Your task to perform on an android device: open the mobile data screen to see how much data has been used Image 0: 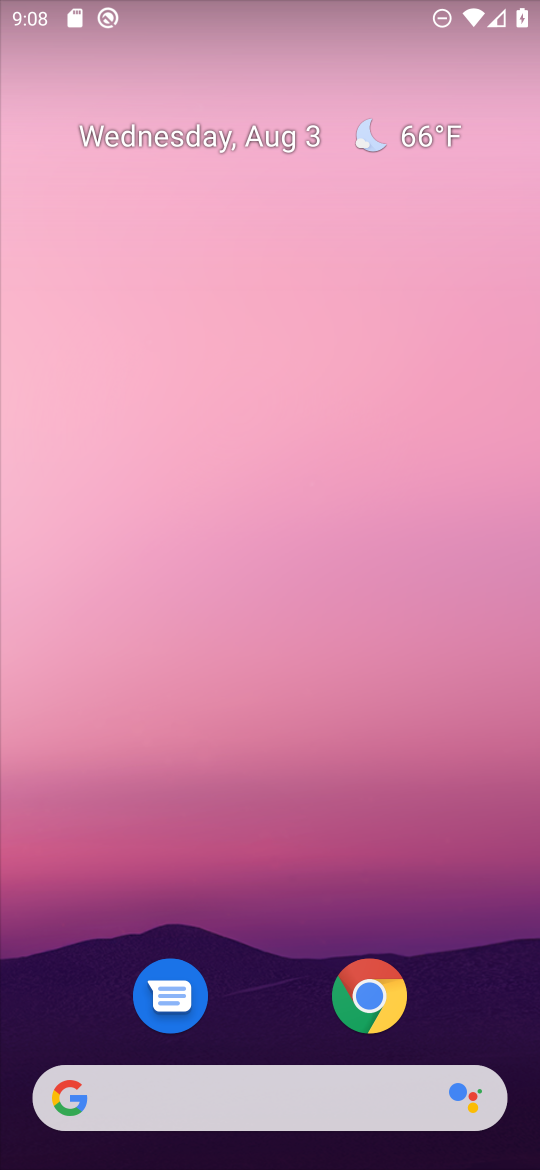
Step 0: drag from (298, 921) to (301, 120)
Your task to perform on an android device: open the mobile data screen to see how much data has been used Image 1: 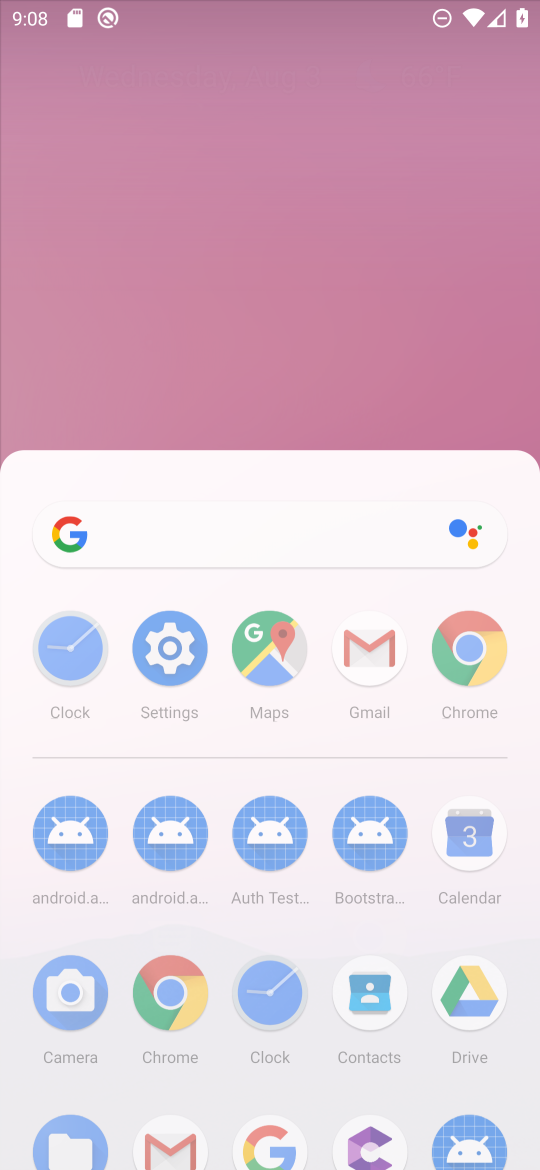
Step 1: click (293, 35)
Your task to perform on an android device: open the mobile data screen to see how much data has been used Image 2: 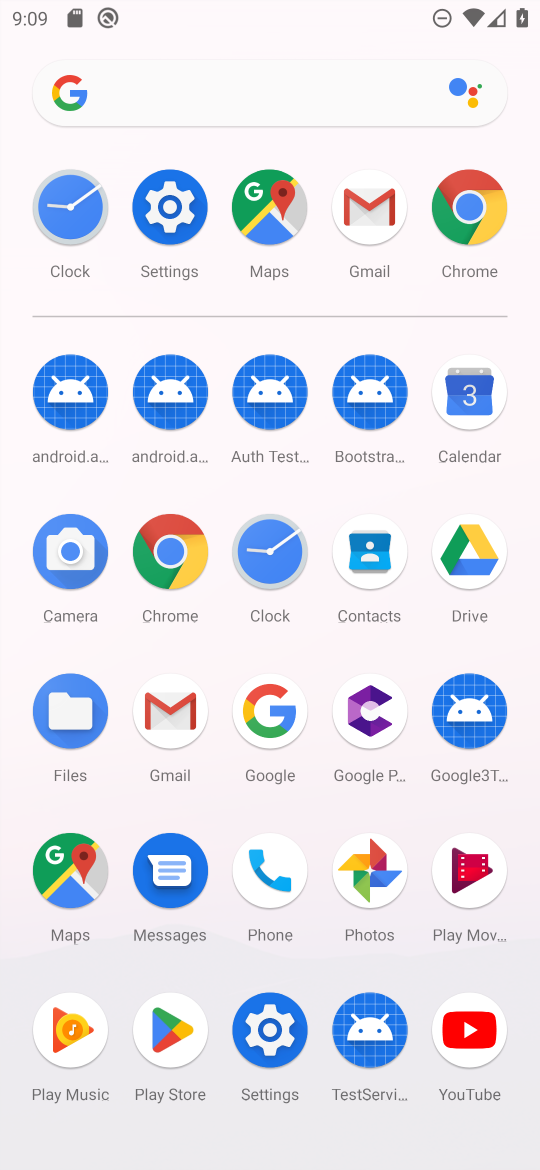
Step 2: click (177, 214)
Your task to perform on an android device: open the mobile data screen to see how much data has been used Image 3: 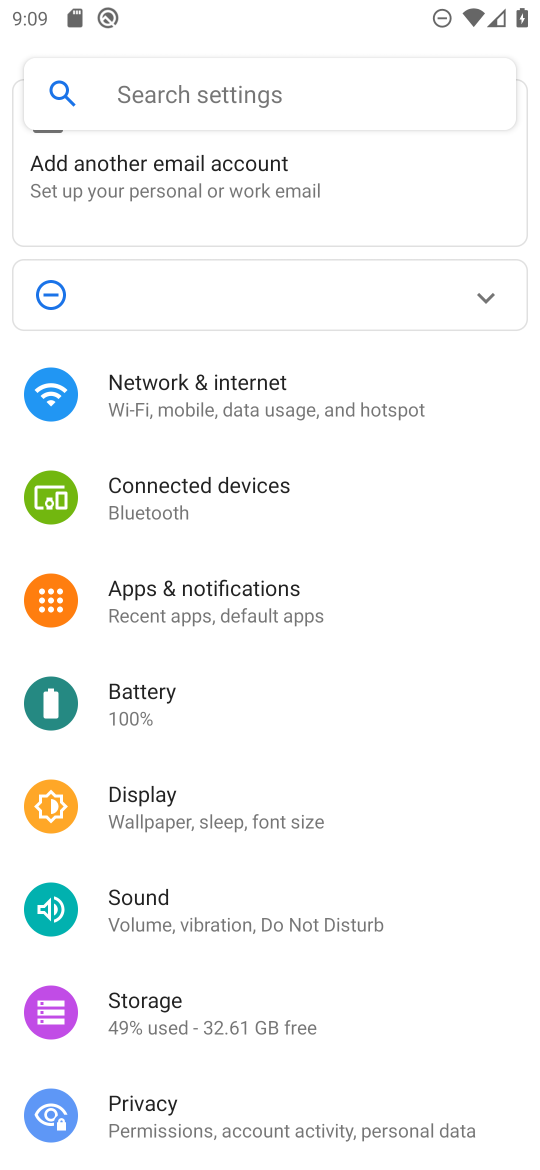
Step 3: click (252, 395)
Your task to perform on an android device: open the mobile data screen to see how much data has been used Image 4: 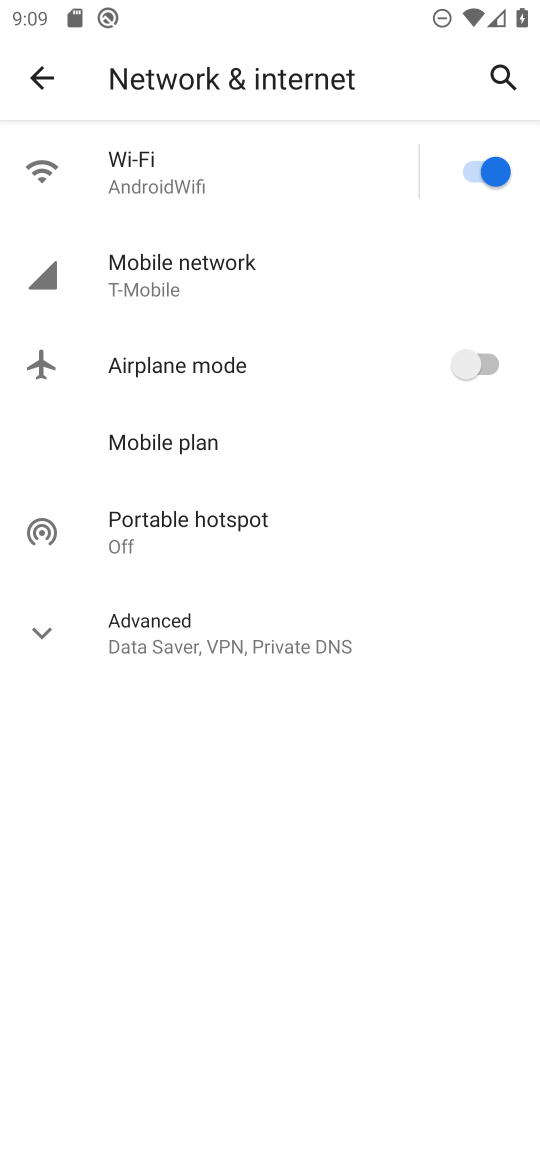
Step 4: click (211, 282)
Your task to perform on an android device: open the mobile data screen to see how much data has been used Image 5: 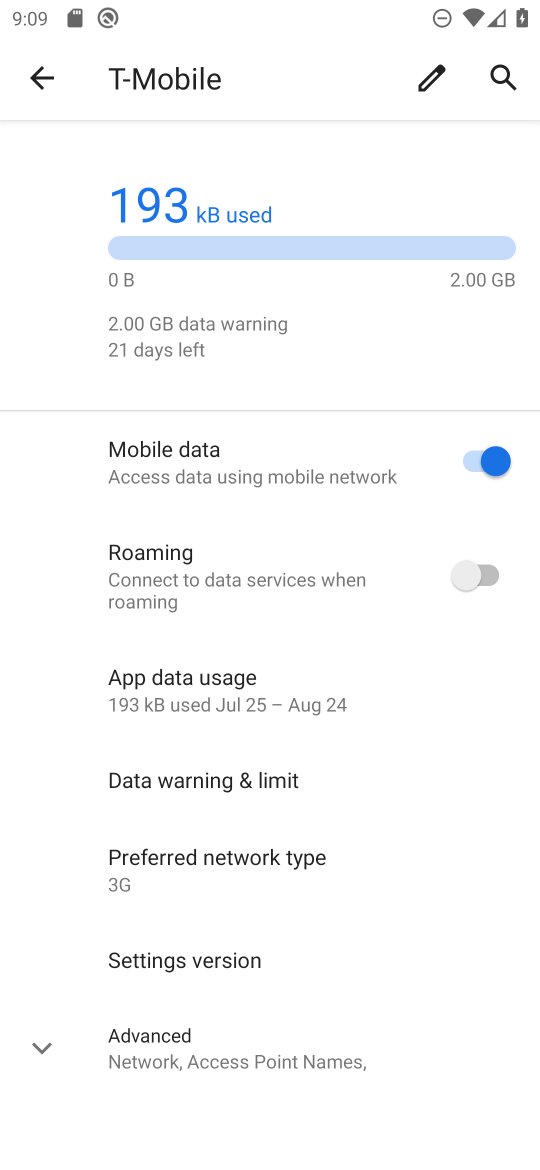
Step 5: task complete